Your task to perform on an android device: turn pop-ups on in chrome Image 0: 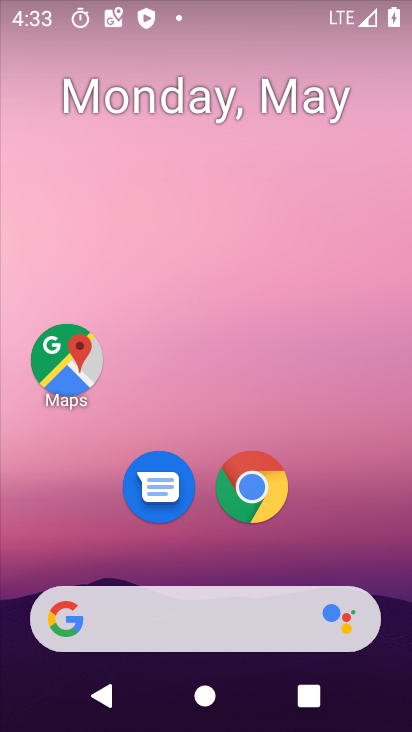
Step 0: click (247, 497)
Your task to perform on an android device: turn pop-ups on in chrome Image 1: 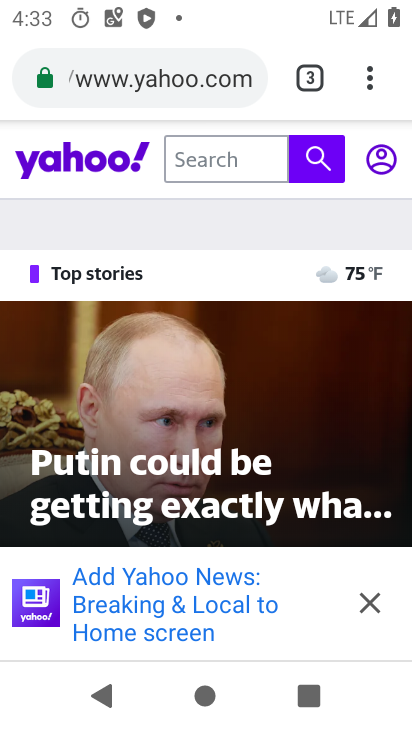
Step 1: click (370, 82)
Your task to perform on an android device: turn pop-ups on in chrome Image 2: 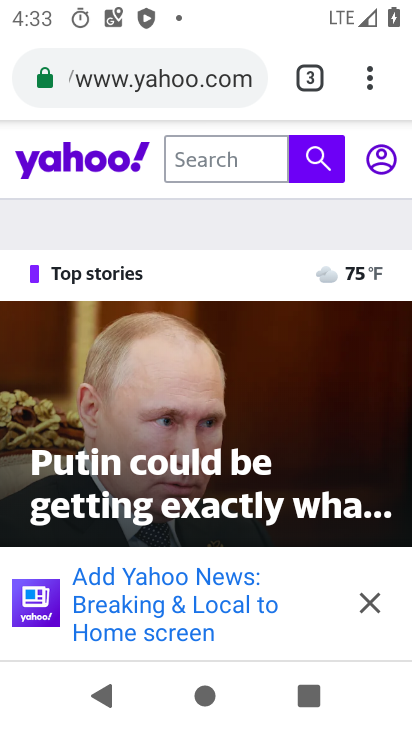
Step 2: click (373, 76)
Your task to perform on an android device: turn pop-ups on in chrome Image 3: 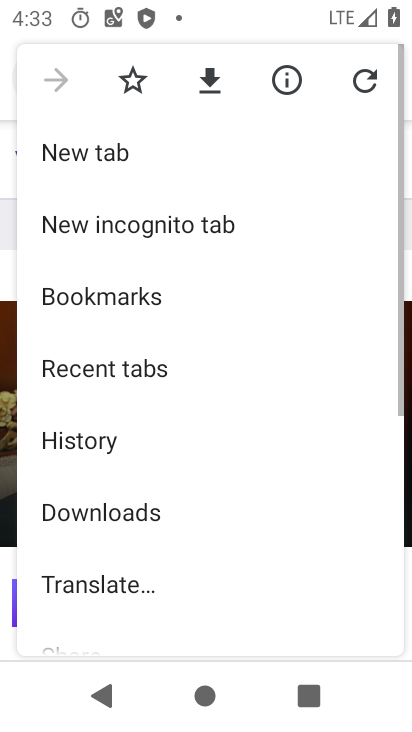
Step 3: drag from (136, 511) to (166, 116)
Your task to perform on an android device: turn pop-ups on in chrome Image 4: 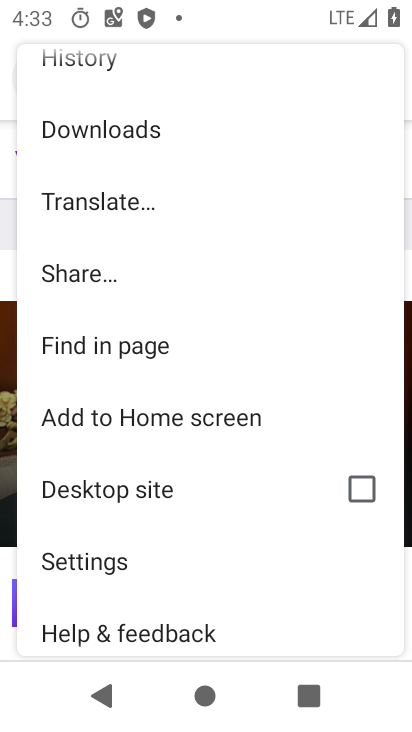
Step 4: click (79, 556)
Your task to perform on an android device: turn pop-ups on in chrome Image 5: 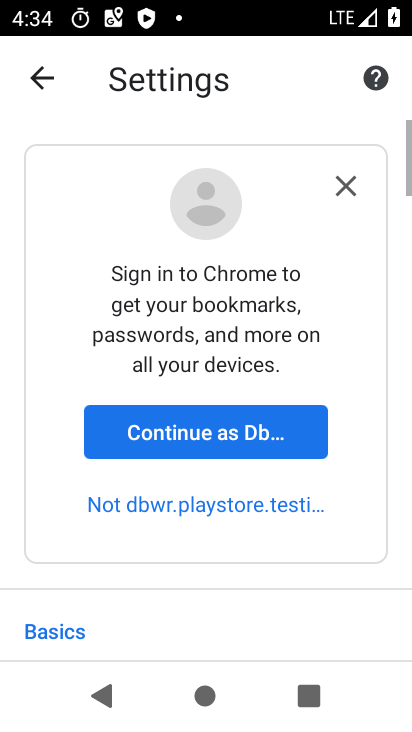
Step 5: drag from (163, 543) to (204, 136)
Your task to perform on an android device: turn pop-ups on in chrome Image 6: 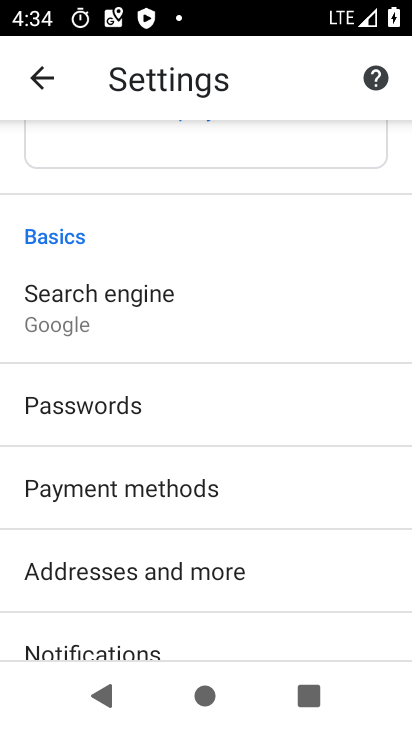
Step 6: drag from (149, 455) to (205, 103)
Your task to perform on an android device: turn pop-ups on in chrome Image 7: 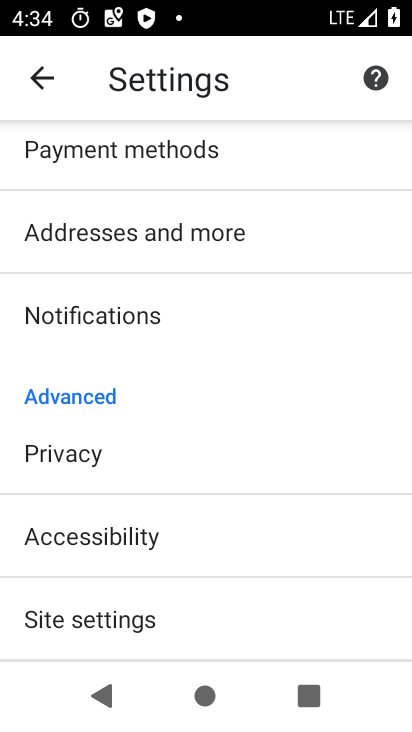
Step 7: drag from (105, 530) to (161, 257)
Your task to perform on an android device: turn pop-ups on in chrome Image 8: 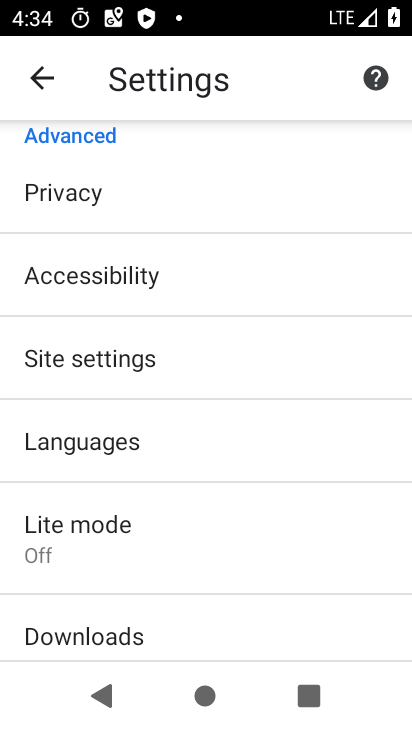
Step 8: click (122, 357)
Your task to perform on an android device: turn pop-ups on in chrome Image 9: 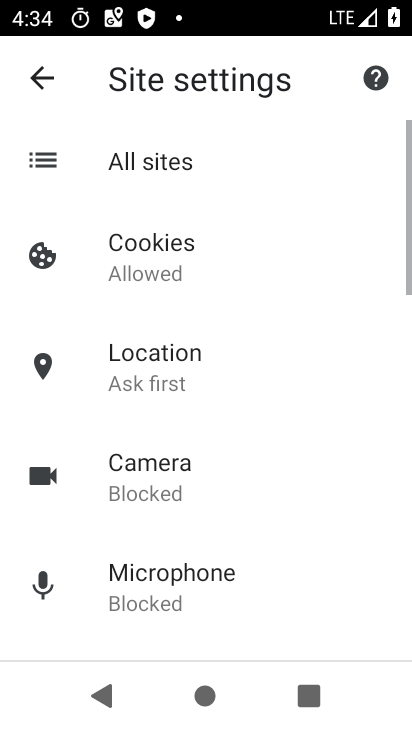
Step 9: drag from (174, 518) to (219, 185)
Your task to perform on an android device: turn pop-ups on in chrome Image 10: 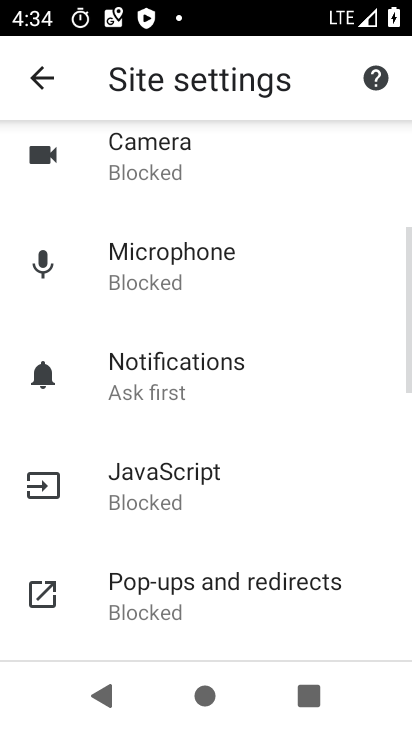
Step 10: click (138, 583)
Your task to perform on an android device: turn pop-ups on in chrome Image 11: 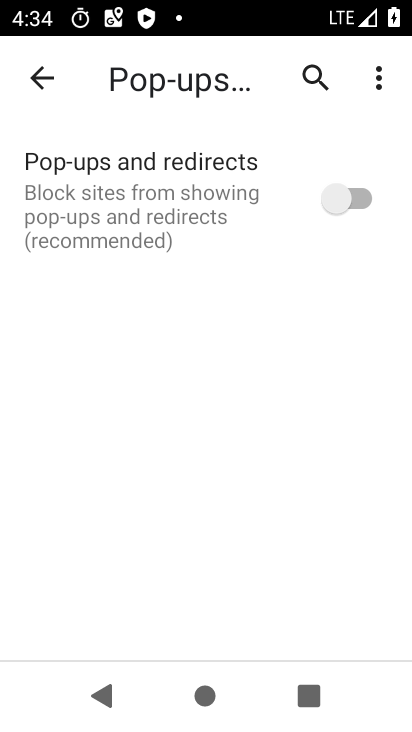
Step 11: click (330, 205)
Your task to perform on an android device: turn pop-ups on in chrome Image 12: 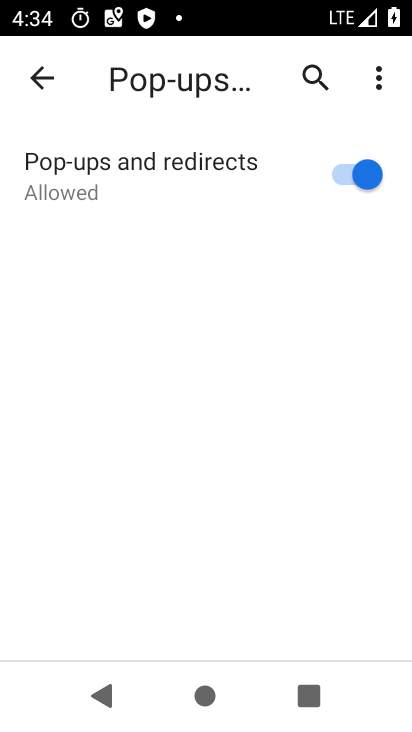
Step 12: task complete